Your task to perform on an android device: Turn on the flashlight Image 0: 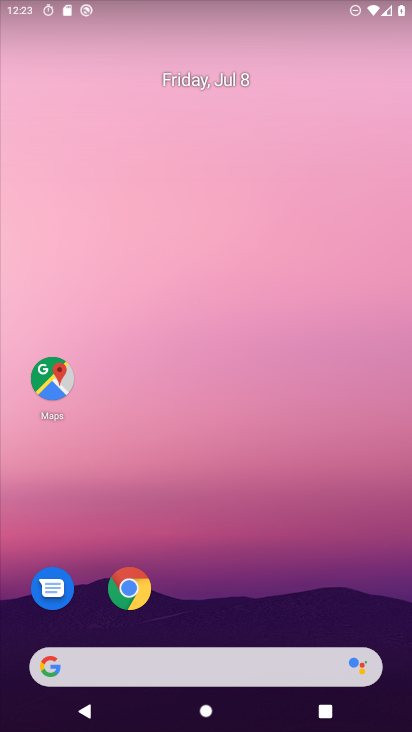
Step 0: drag from (310, 564) to (358, 133)
Your task to perform on an android device: Turn on the flashlight Image 1: 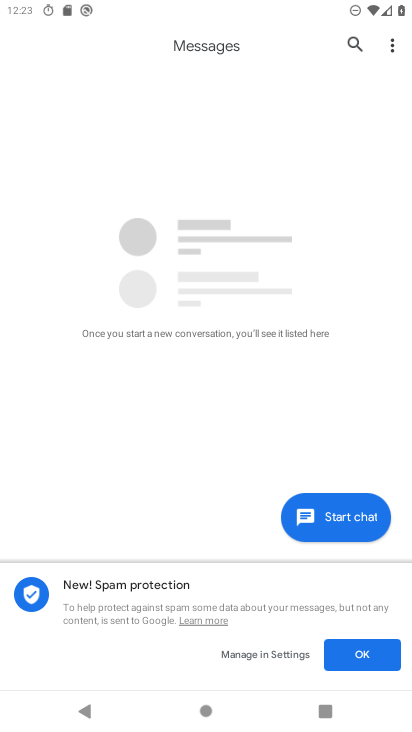
Step 1: press home button
Your task to perform on an android device: Turn on the flashlight Image 2: 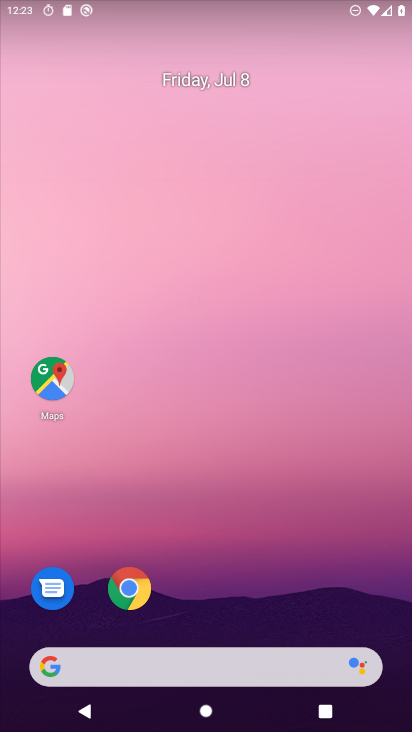
Step 2: drag from (292, 566) to (323, 140)
Your task to perform on an android device: Turn on the flashlight Image 3: 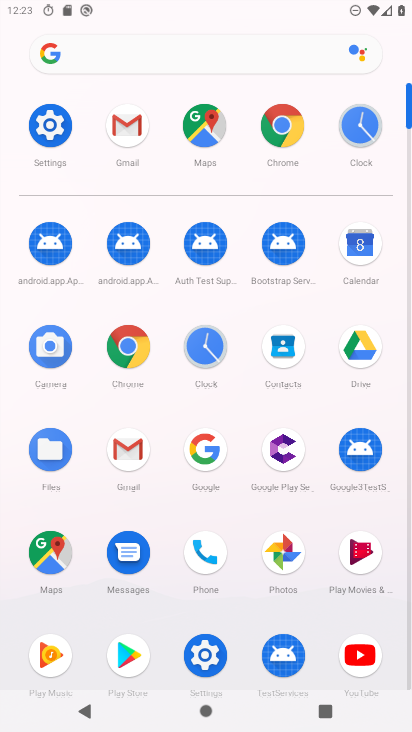
Step 3: click (51, 121)
Your task to perform on an android device: Turn on the flashlight Image 4: 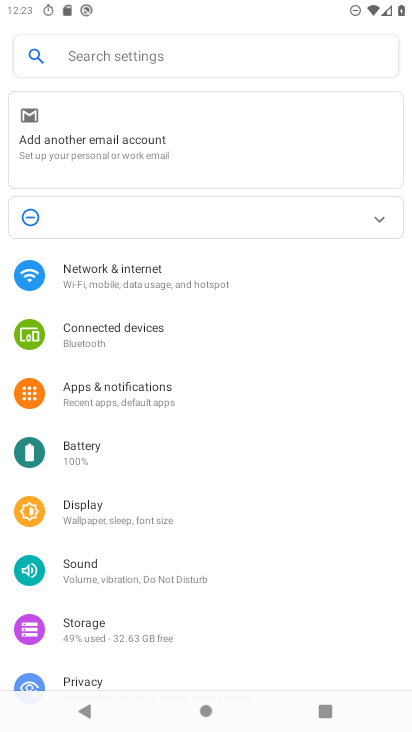
Step 4: click (106, 510)
Your task to perform on an android device: Turn on the flashlight Image 5: 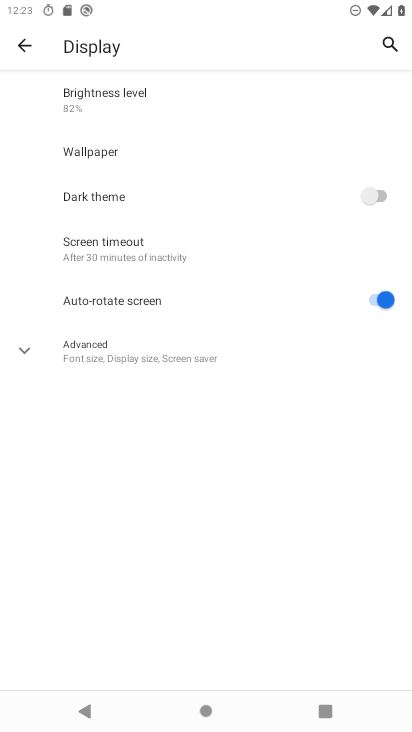
Step 5: click (160, 358)
Your task to perform on an android device: Turn on the flashlight Image 6: 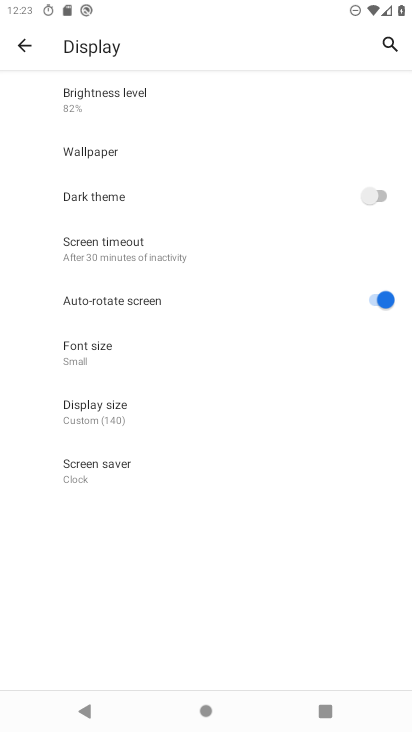
Step 6: task complete